Your task to perform on an android device: delete a single message in the gmail app Image 0: 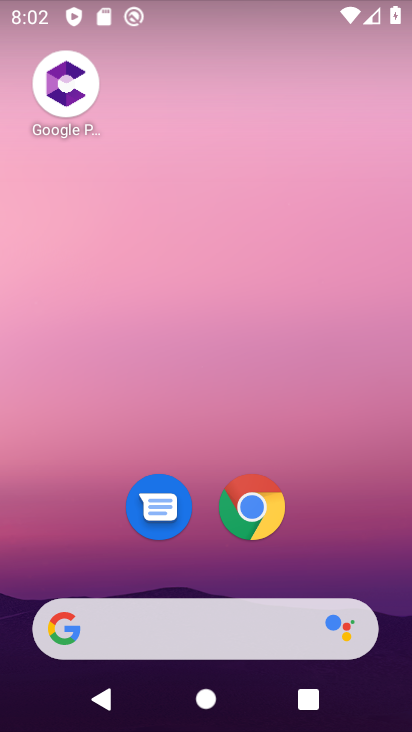
Step 0: drag from (260, 674) to (198, 57)
Your task to perform on an android device: delete a single message in the gmail app Image 1: 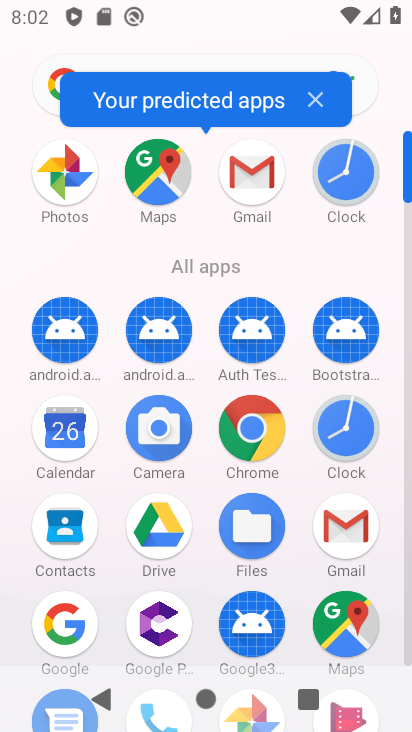
Step 1: click (262, 174)
Your task to perform on an android device: delete a single message in the gmail app Image 2: 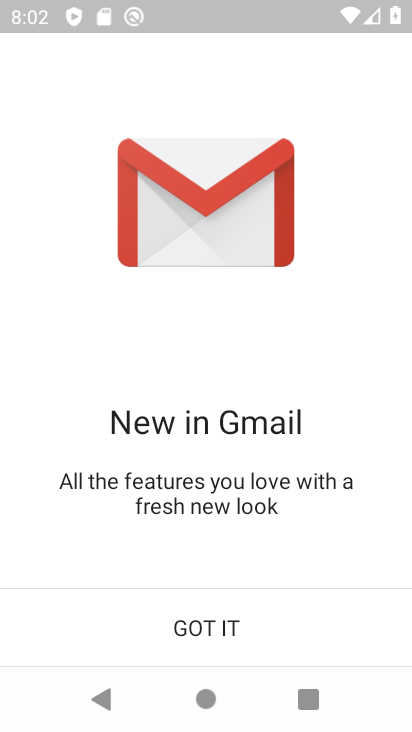
Step 2: click (264, 637)
Your task to perform on an android device: delete a single message in the gmail app Image 3: 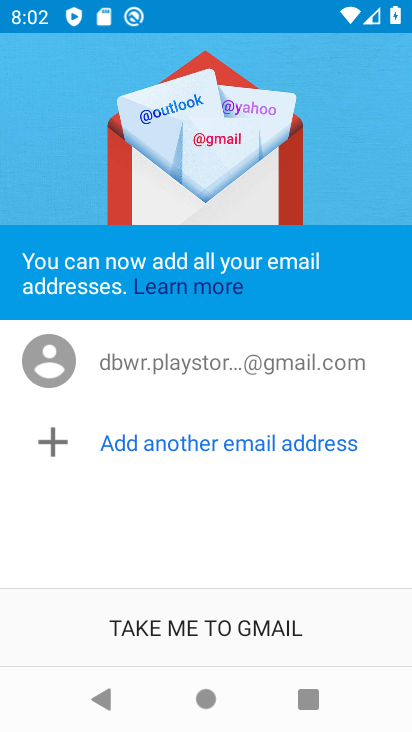
Step 3: click (264, 628)
Your task to perform on an android device: delete a single message in the gmail app Image 4: 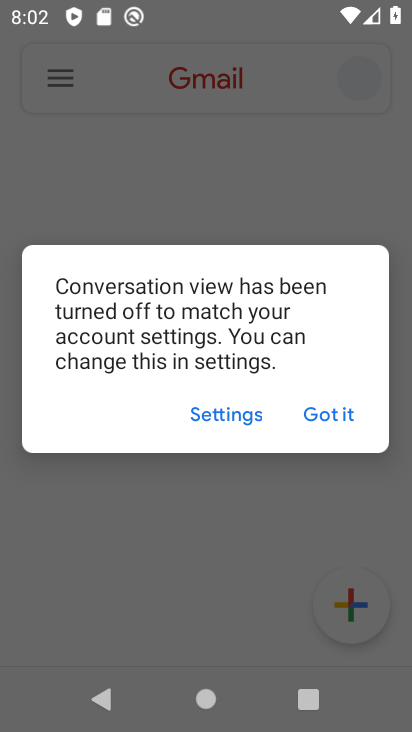
Step 4: click (327, 407)
Your task to perform on an android device: delete a single message in the gmail app Image 5: 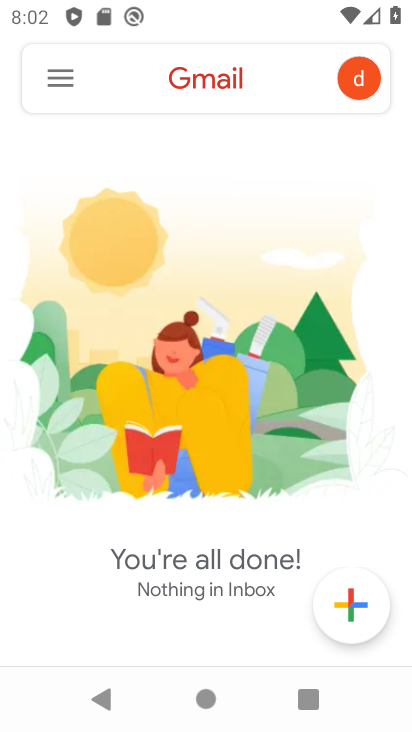
Step 5: task complete